Your task to perform on an android device: Search for seafood restaurants on Google Maps Image 0: 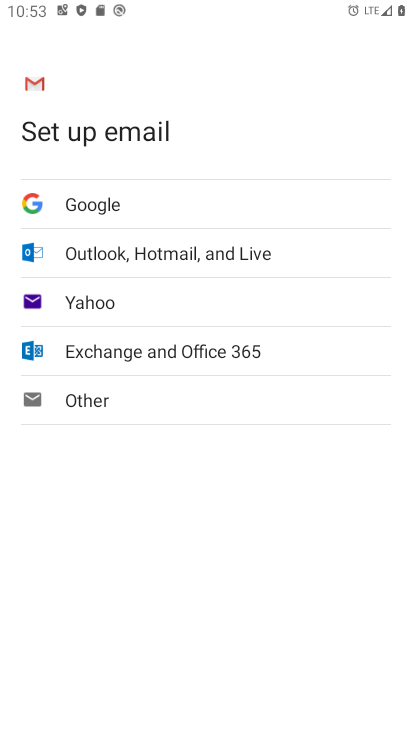
Step 0: press home button
Your task to perform on an android device: Search for seafood restaurants on Google Maps Image 1: 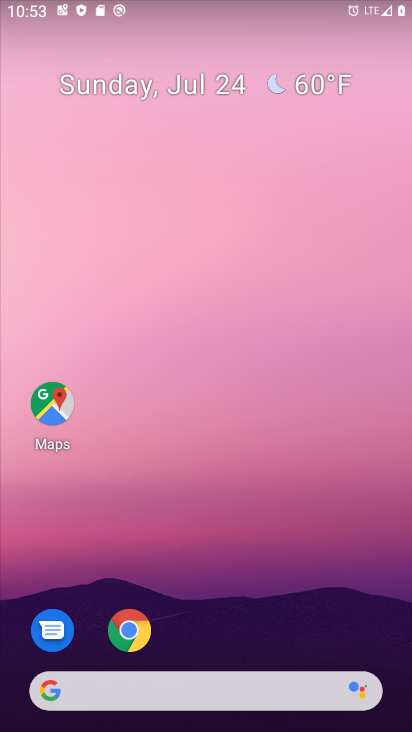
Step 1: drag from (203, 660) to (252, 284)
Your task to perform on an android device: Search for seafood restaurants on Google Maps Image 2: 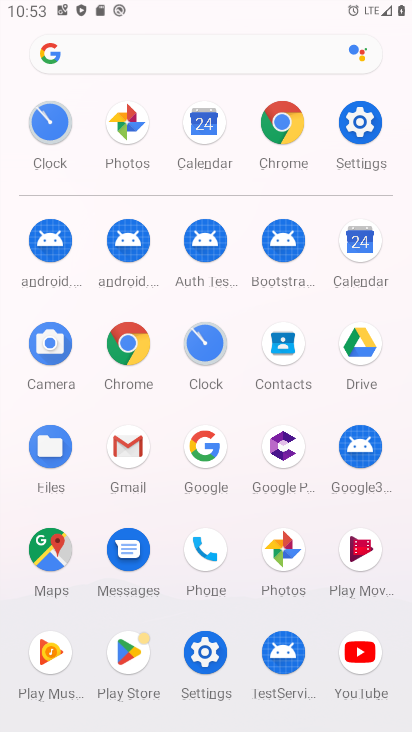
Step 2: click (50, 554)
Your task to perform on an android device: Search for seafood restaurants on Google Maps Image 3: 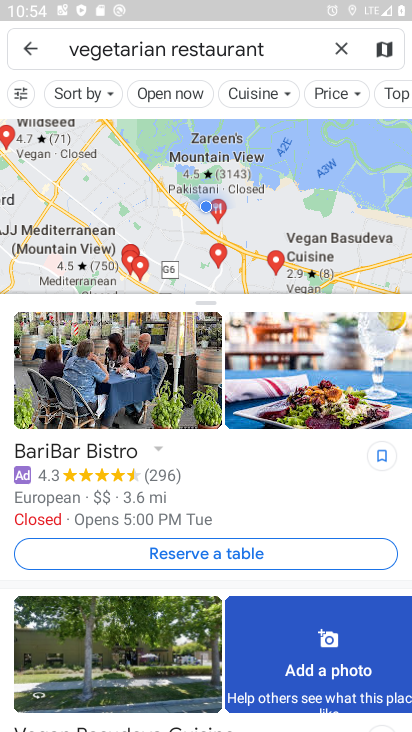
Step 3: click (28, 52)
Your task to perform on an android device: Search for seafood restaurants on Google Maps Image 4: 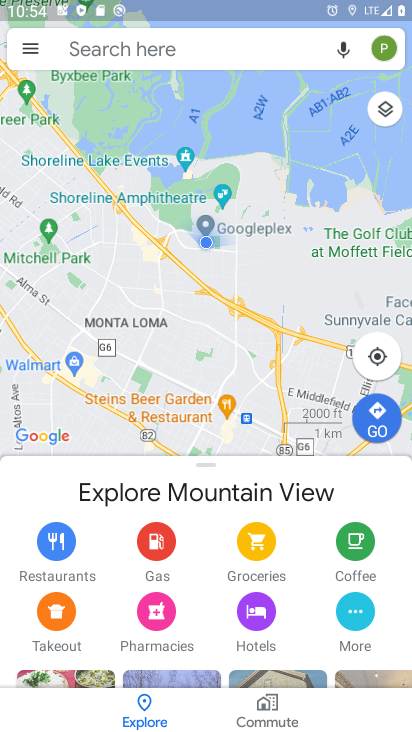
Step 4: click (153, 52)
Your task to perform on an android device: Search for seafood restaurants on Google Maps Image 5: 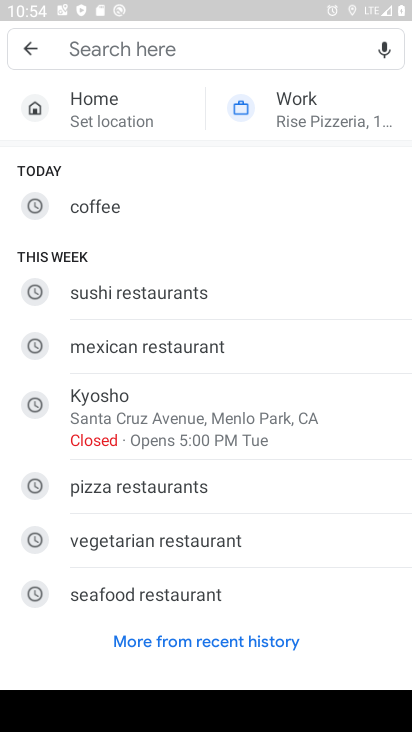
Step 5: type "seafood restaurants"
Your task to perform on an android device: Search for seafood restaurants on Google Maps Image 6: 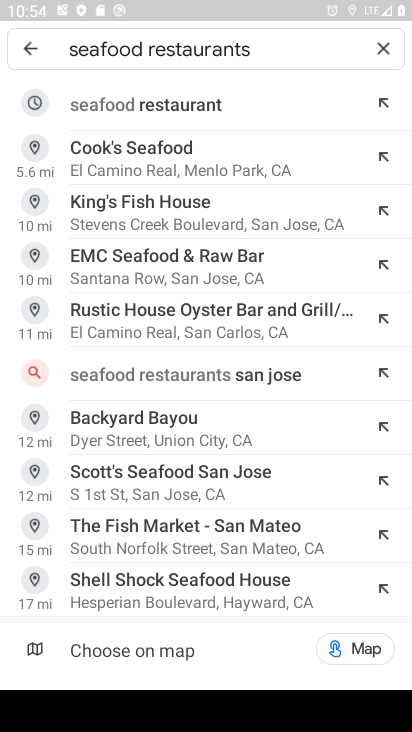
Step 6: click (226, 100)
Your task to perform on an android device: Search for seafood restaurants on Google Maps Image 7: 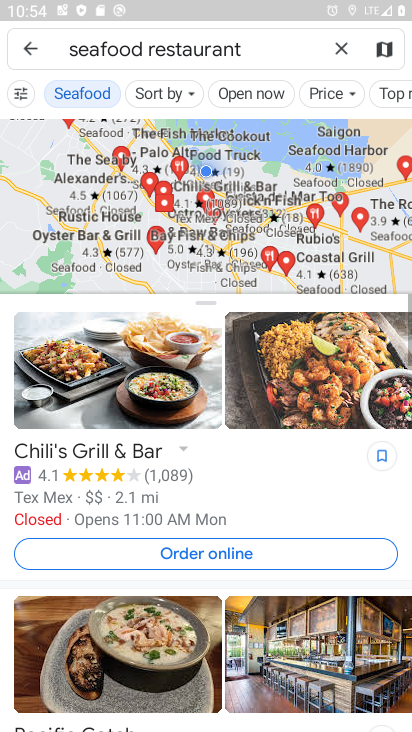
Step 7: task complete